Your task to perform on an android device: Open maps Image 0: 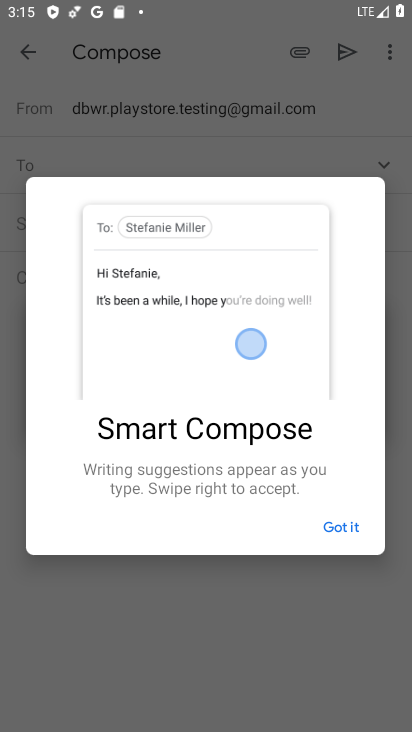
Step 0: press home button
Your task to perform on an android device: Open maps Image 1: 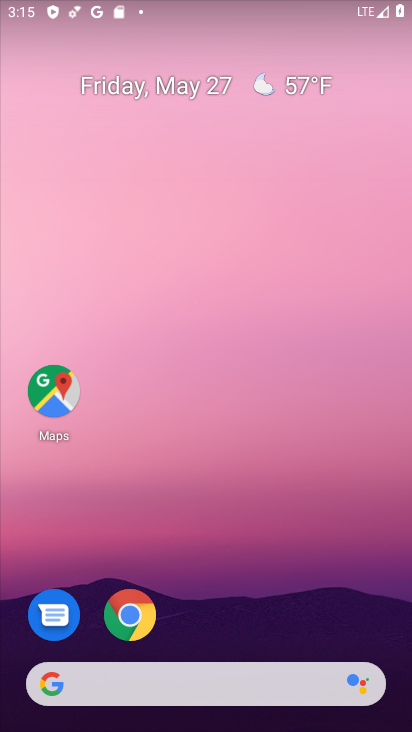
Step 1: click (74, 417)
Your task to perform on an android device: Open maps Image 2: 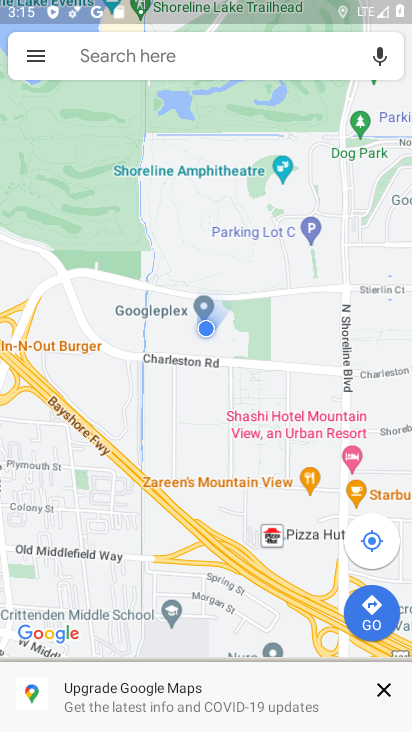
Step 2: task complete